Your task to perform on an android device: add a contact Image 0: 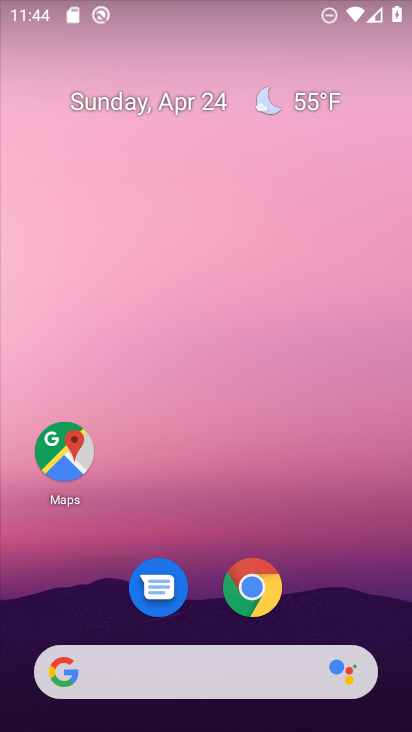
Step 0: drag from (232, 497) to (269, 0)
Your task to perform on an android device: add a contact Image 1: 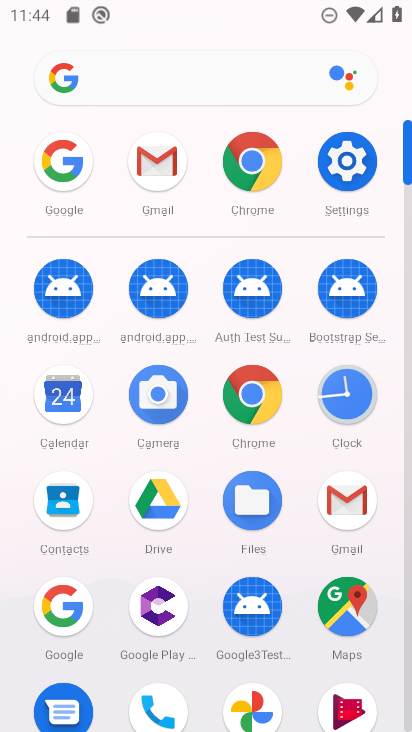
Step 1: click (71, 507)
Your task to perform on an android device: add a contact Image 2: 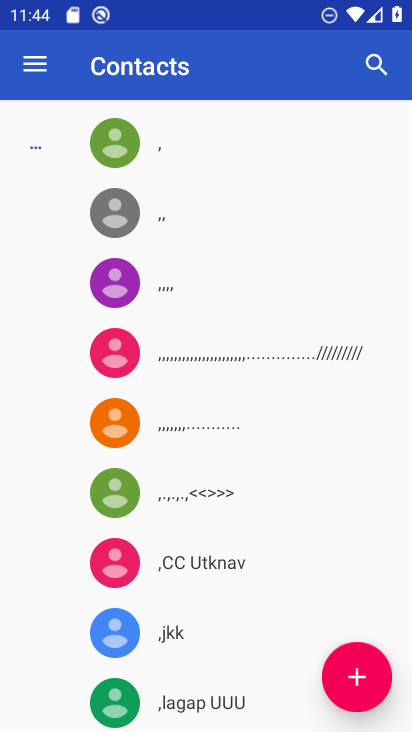
Step 2: click (353, 667)
Your task to perform on an android device: add a contact Image 3: 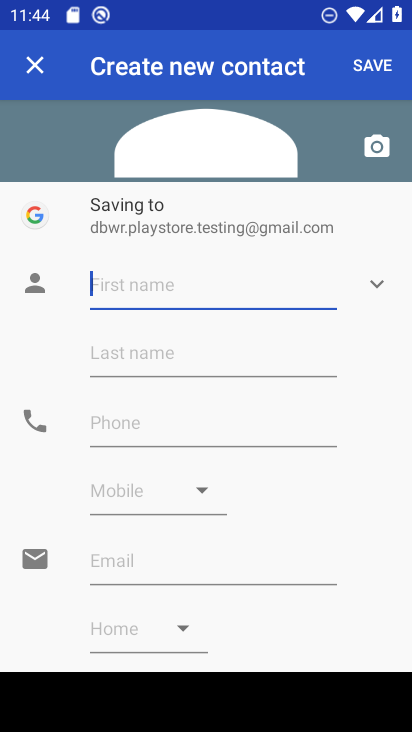
Step 3: type "kjhkk"
Your task to perform on an android device: add a contact Image 4: 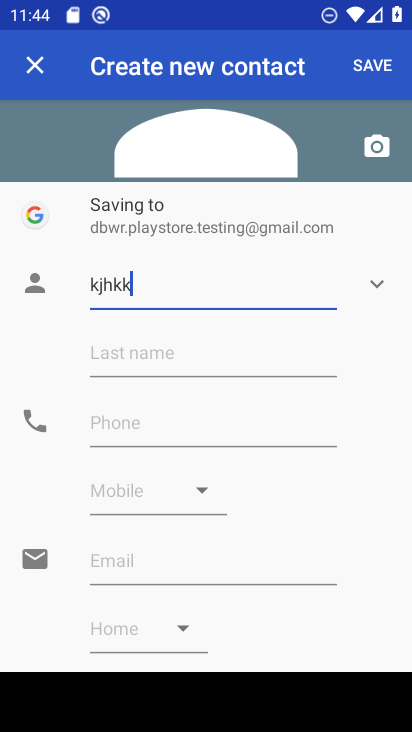
Step 4: type ""
Your task to perform on an android device: add a contact Image 5: 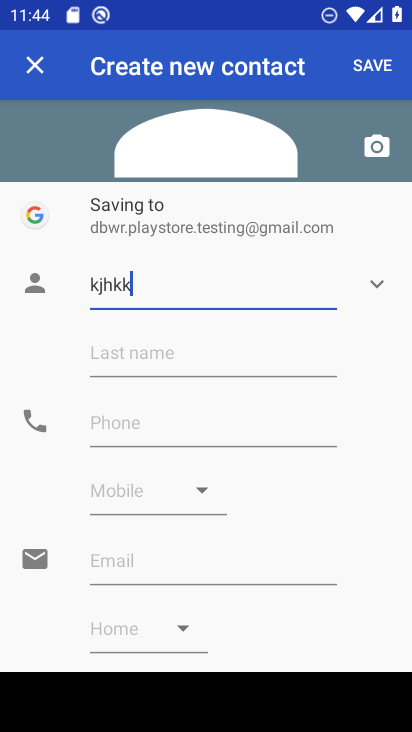
Step 5: click (371, 57)
Your task to perform on an android device: add a contact Image 6: 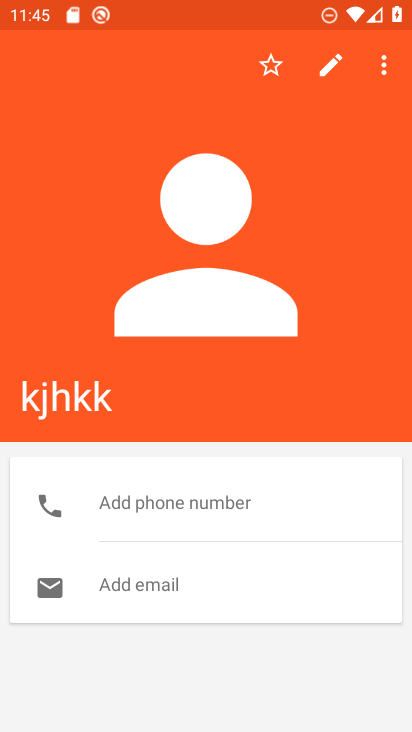
Step 6: task complete